Your task to perform on an android device: Open Youtube and go to "Your channel" Image 0: 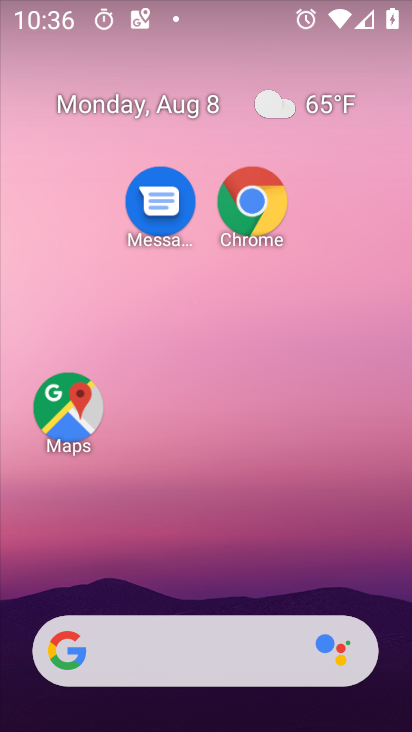
Step 0: drag from (241, 539) to (302, 31)
Your task to perform on an android device: Open Youtube and go to "Your channel" Image 1: 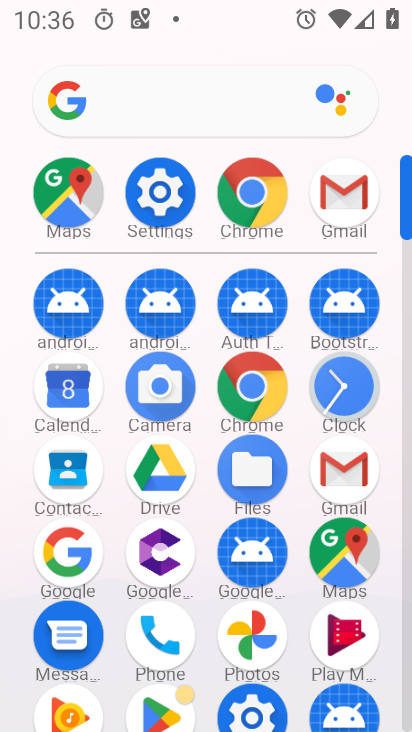
Step 1: drag from (211, 613) to (243, 177)
Your task to perform on an android device: Open Youtube and go to "Your channel" Image 2: 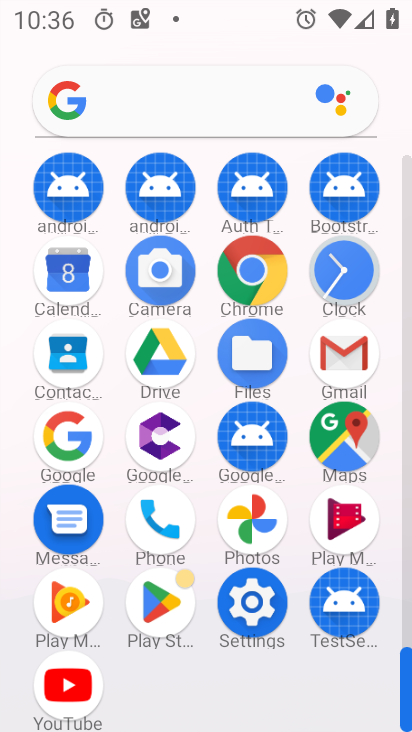
Step 2: click (64, 677)
Your task to perform on an android device: Open Youtube and go to "Your channel" Image 3: 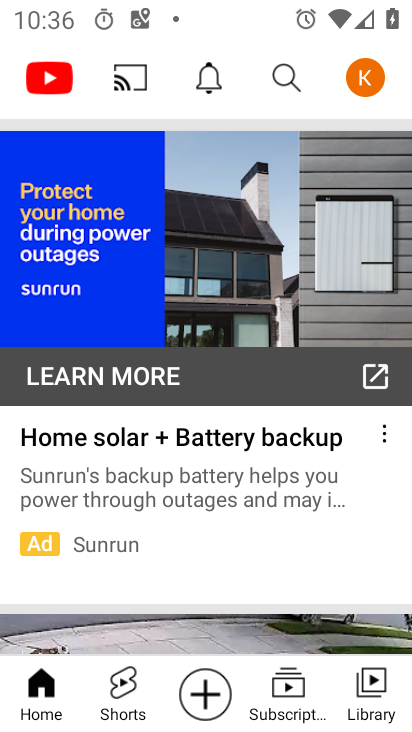
Step 3: click (364, 75)
Your task to perform on an android device: Open Youtube and go to "Your channel" Image 4: 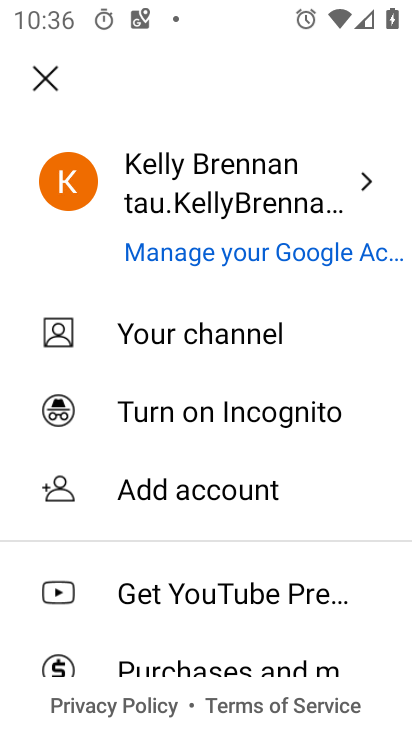
Step 4: click (244, 321)
Your task to perform on an android device: Open Youtube and go to "Your channel" Image 5: 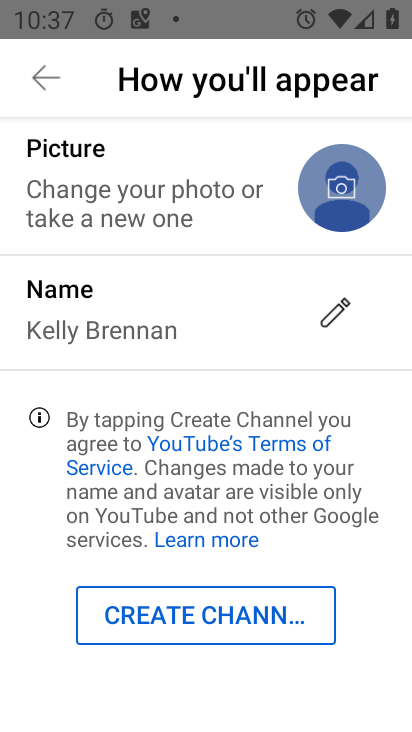
Step 5: task complete